Your task to perform on an android device: change the upload size in google photos Image 0: 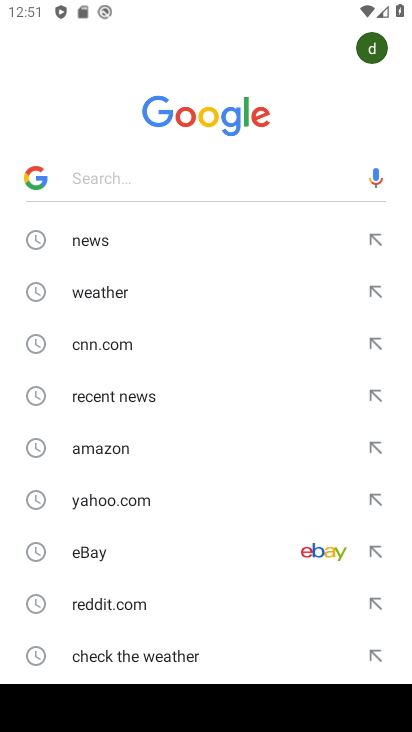
Step 0: press home button
Your task to perform on an android device: change the upload size in google photos Image 1: 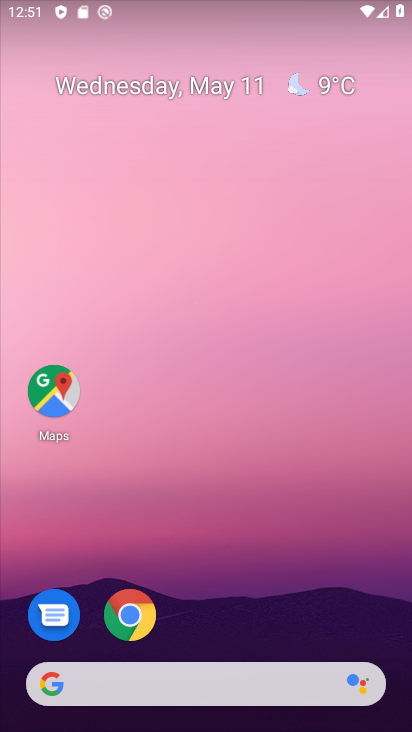
Step 1: drag from (226, 608) to (219, 165)
Your task to perform on an android device: change the upload size in google photos Image 2: 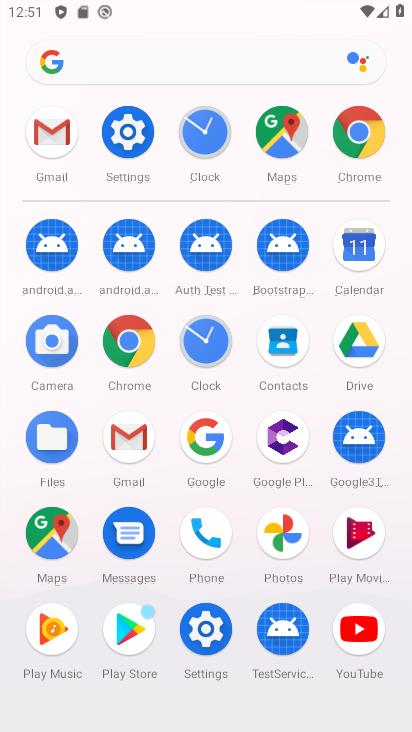
Step 2: click (277, 538)
Your task to perform on an android device: change the upload size in google photos Image 3: 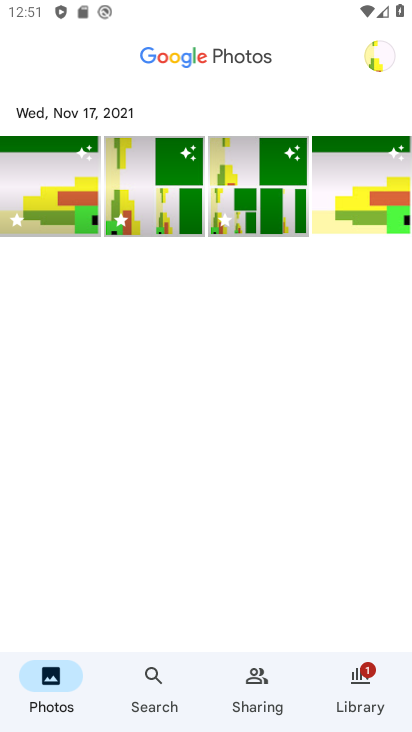
Step 3: click (387, 74)
Your task to perform on an android device: change the upload size in google photos Image 4: 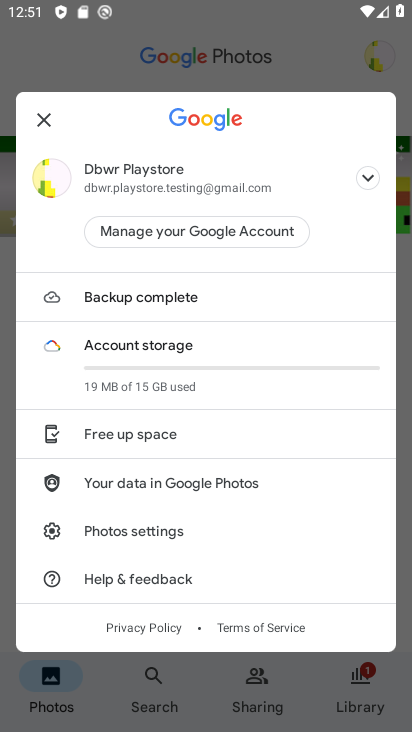
Step 4: click (159, 530)
Your task to perform on an android device: change the upload size in google photos Image 5: 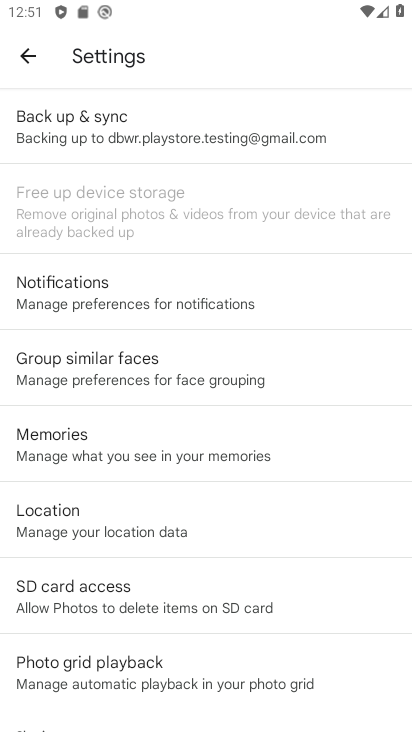
Step 5: click (160, 133)
Your task to perform on an android device: change the upload size in google photos Image 6: 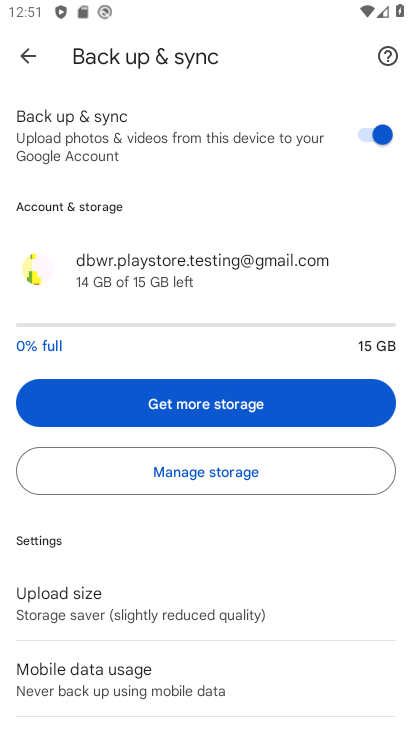
Step 6: click (127, 599)
Your task to perform on an android device: change the upload size in google photos Image 7: 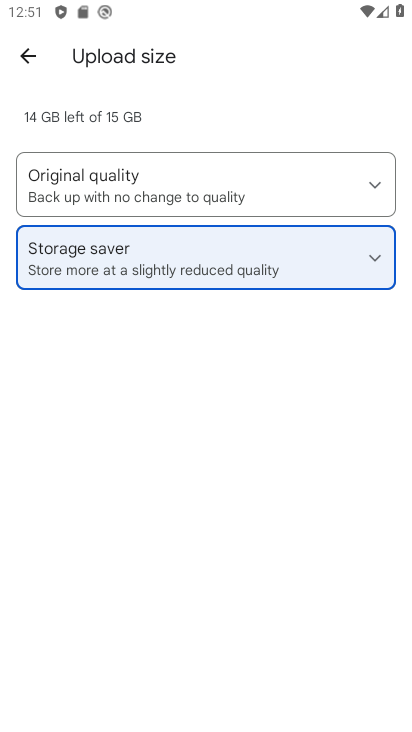
Step 7: click (210, 200)
Your task to perform on an android device: change the upload size in google photos Image 8: 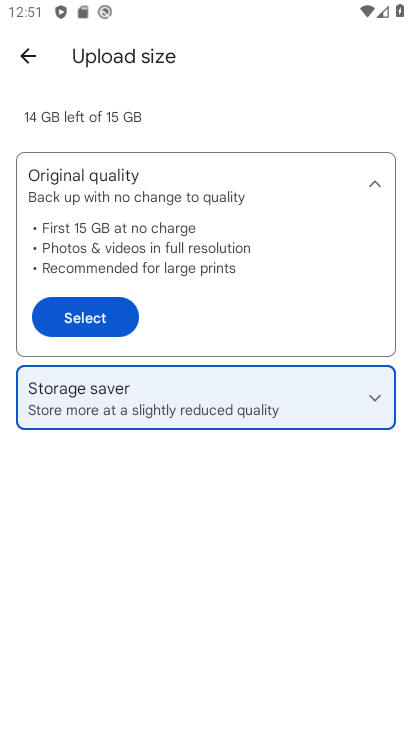
Step 8: task complete